Your task to perform on an android device: open app "The Home Depot" (install if not already installed) and go to login screen Image 0: 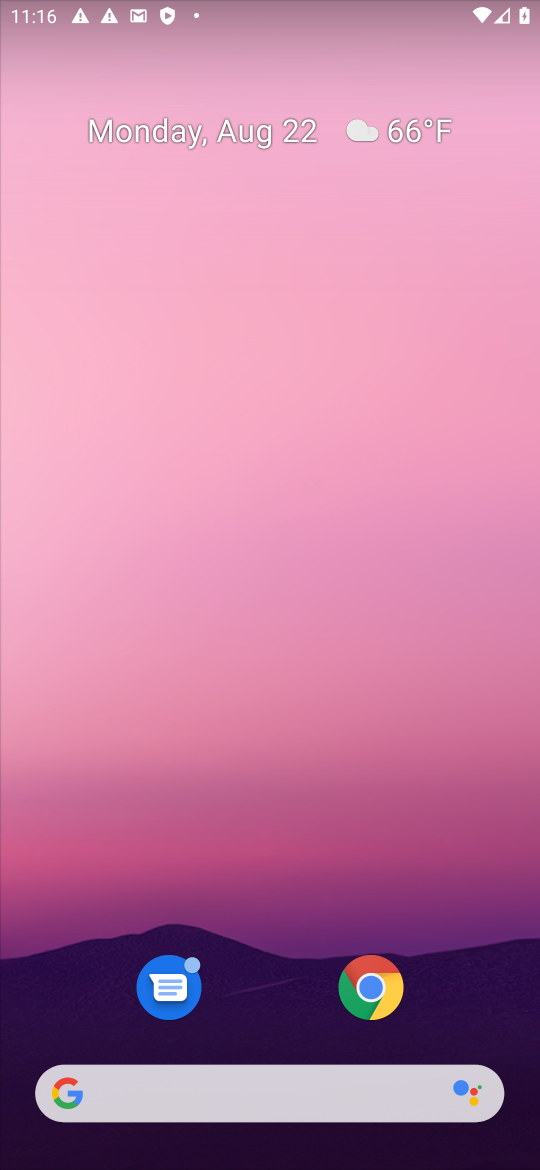
Step 0: drag from (459, 999) to (461, 57)
Your task to perform on an android device: open app "The Home Depot" (install if not already installed) and go to login screen Image 1: 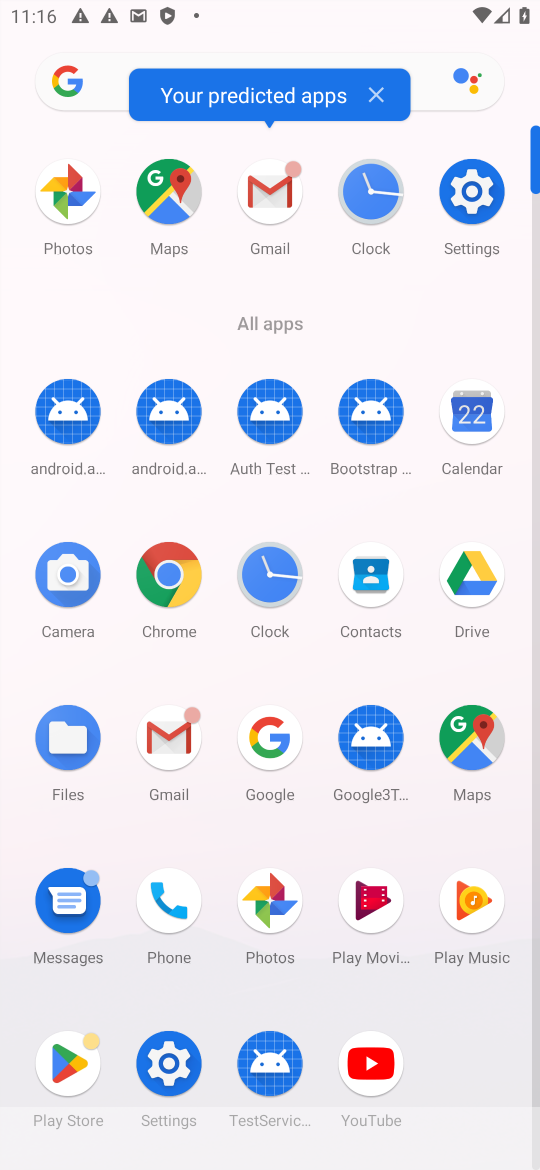
Step 1: click (62, 1076)
Your task to perform on an android device: open app "The Home Depot" (install if not already installed) and go to login screen Image 2: 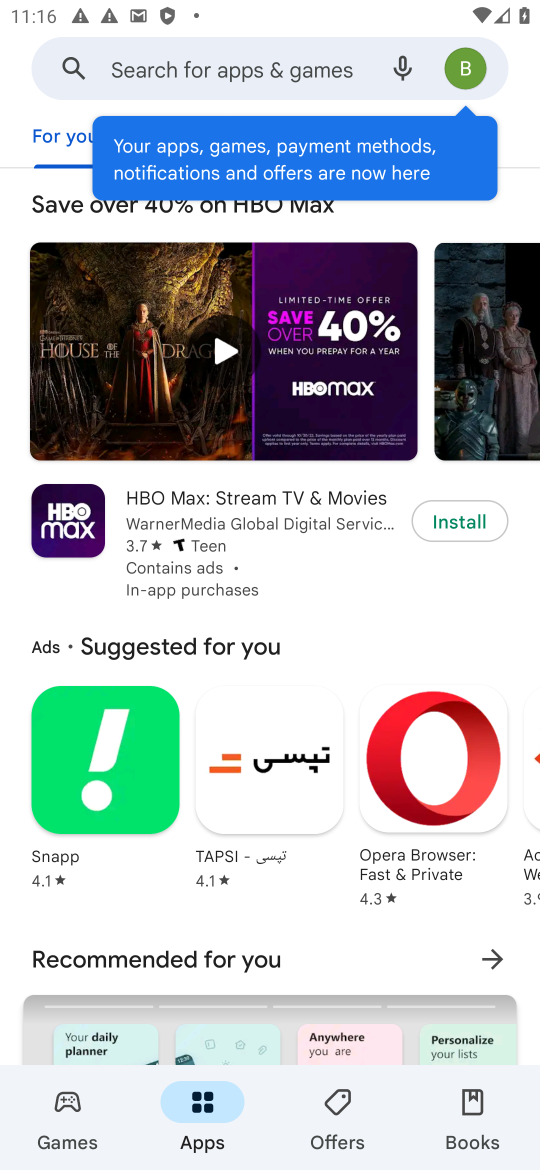
Step 2: click (271, 62)
Your task to perform on an android device: open app "The Home Depot" (install if not already installed) and go to login screen Image 3: 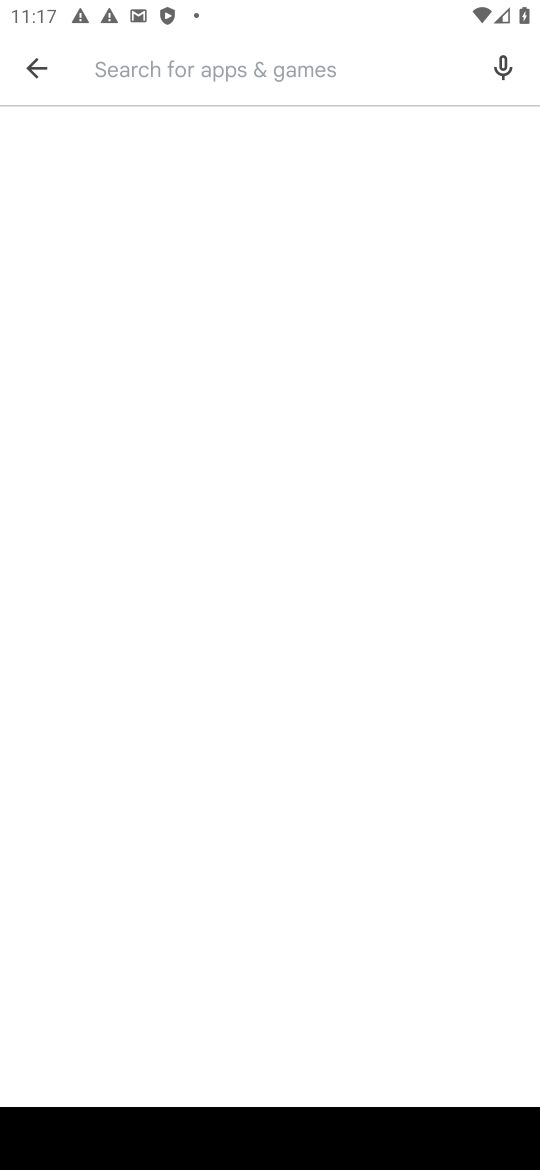
Step 3: type "The Home Depot"
Your task to perform on an android device: open app "The Home Depot" (install if not already installed) and go to login screen Image 4: 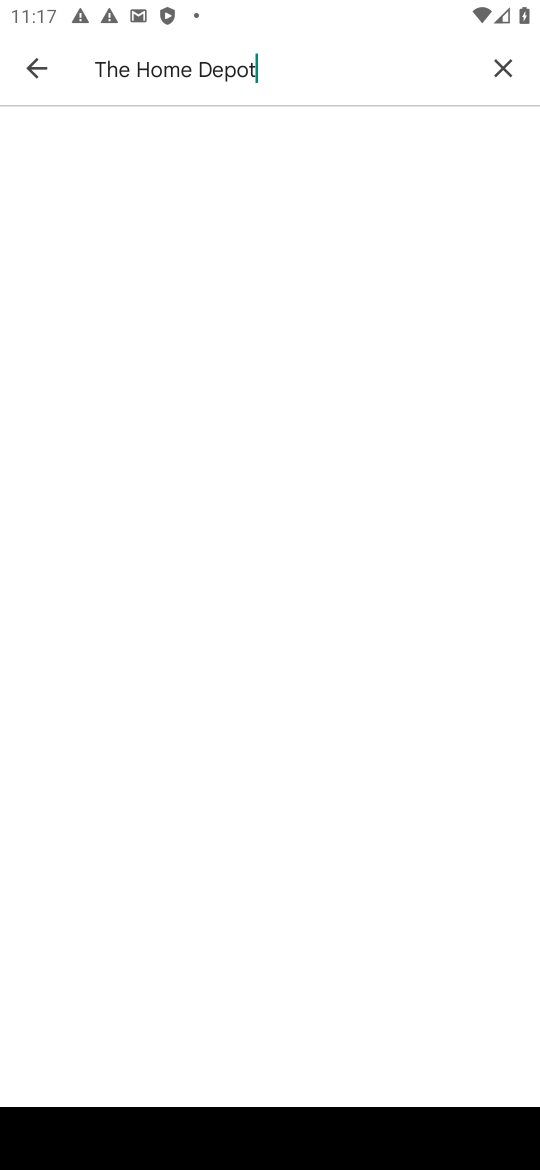
Step 4: press enter
Your task to perform on an android device: open app "The Home Depot" (install if not already installed) and go to login screen Image 5: 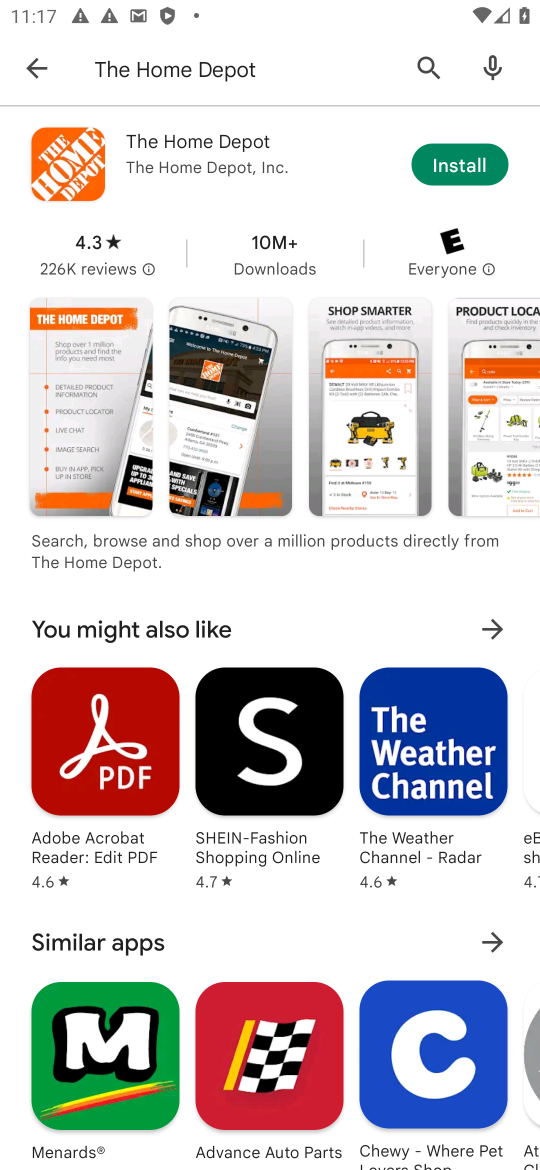
Step 5: click (451, 174)
Your task to perform on an android device: open app "The Home Depot" (install if not already installed) and go to login screen Image 6: 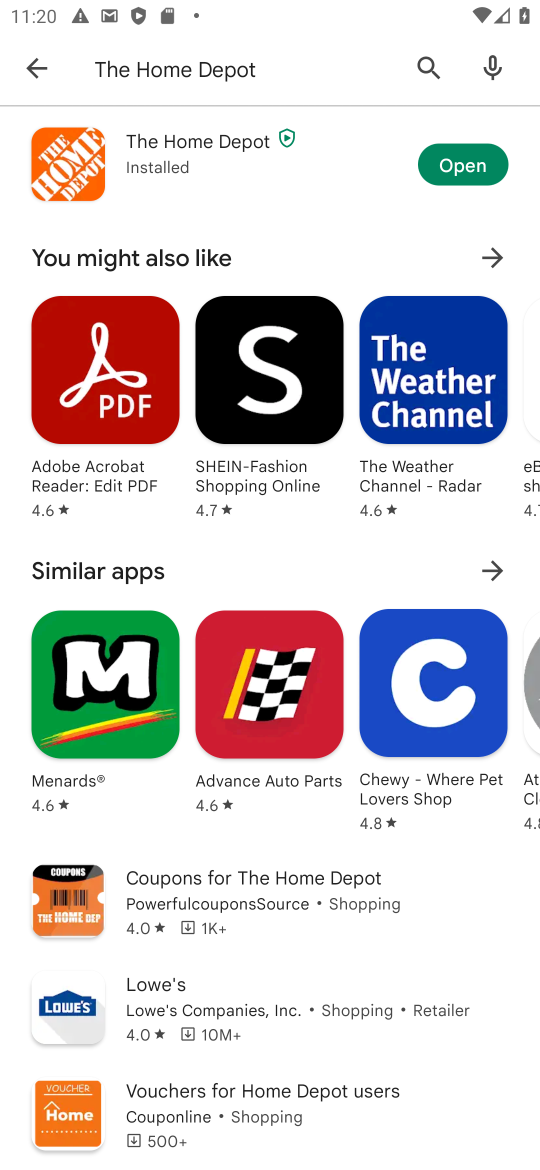
Step 6: click (442, 176)
Your task to perform on an android device: open app "The Home Depot" (install if not already installed) and go to login screen Image 7: 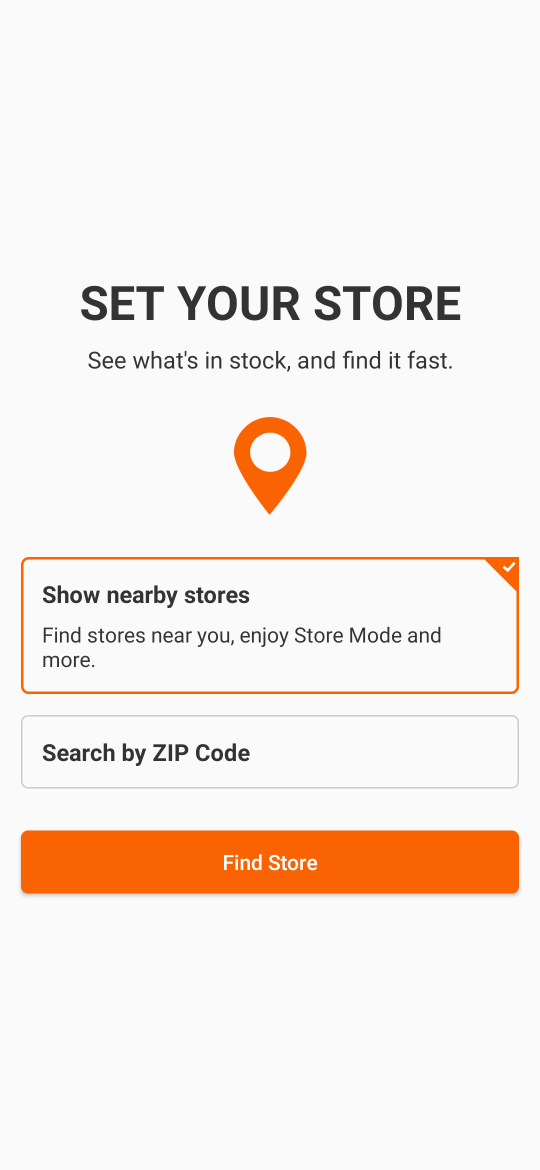
Step 7: task complete